Your task to perform on an android device: refresh tabs in the chrome app Image 0: 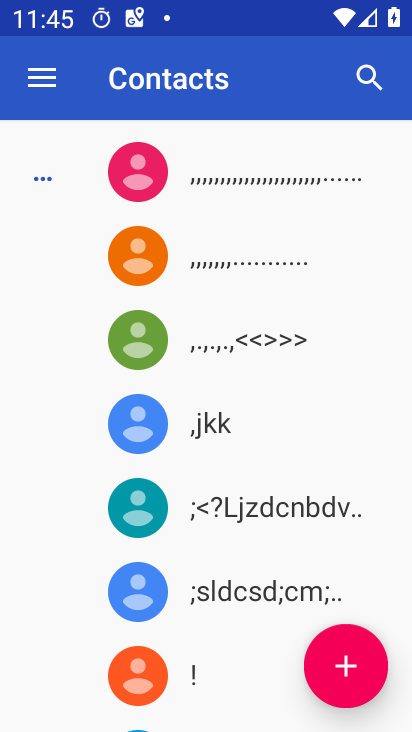
Step 0: press home button
Your task to perform on an android device: refresh tabs in the chrome app Image 1: 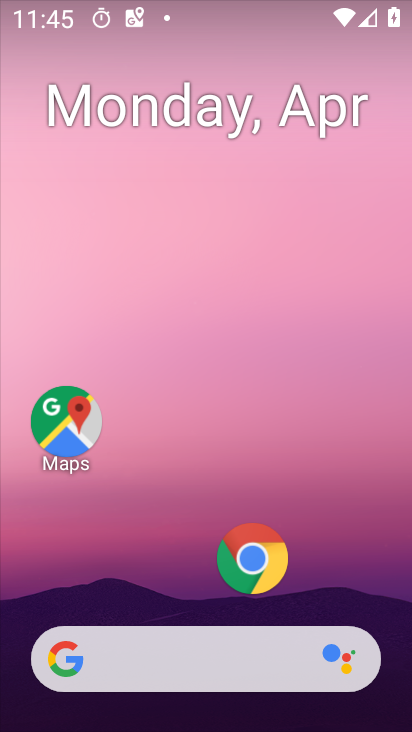
Step 1: click (246, 545)
Your task to perform on an android device: refresh tabs in the chrome app Image 2: 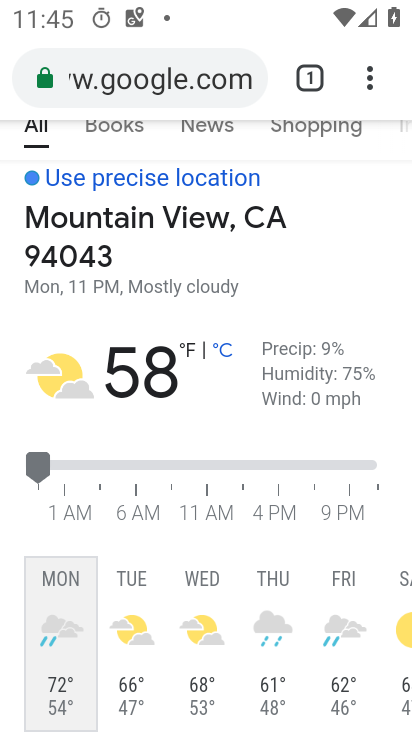
Step 2: click (326, 81)
Your task to perform on an android device: refresh tabs in the chrome app Image 3: 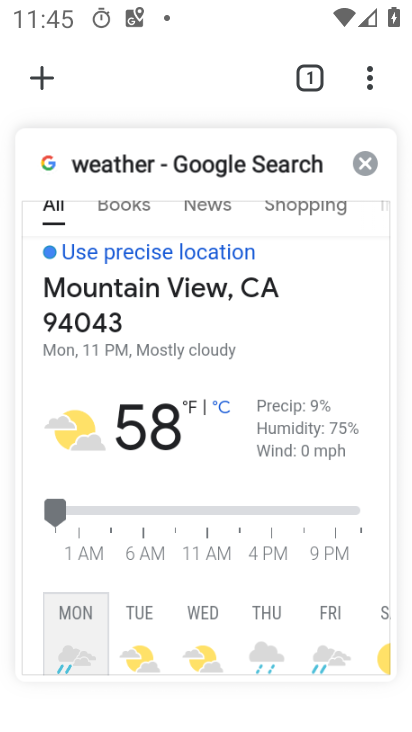
Step 3: click (380, 80)
Your task to perform on an android device: refresh tabs in the chrome app Image 4: 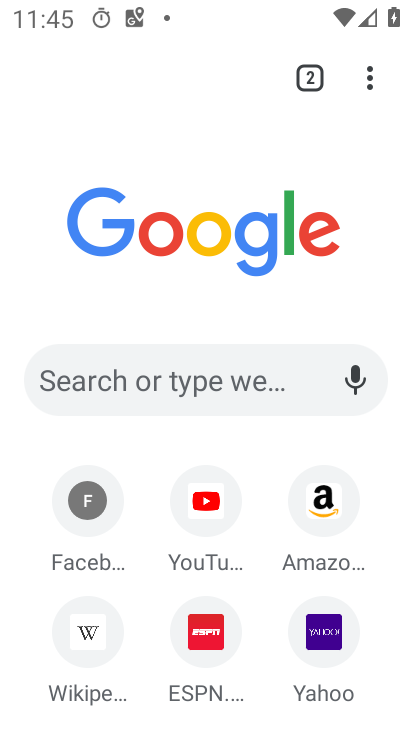
Step 4: click (370, 81)
Your task to perform on an android device: refresh tabs in the chrome app Image 5: 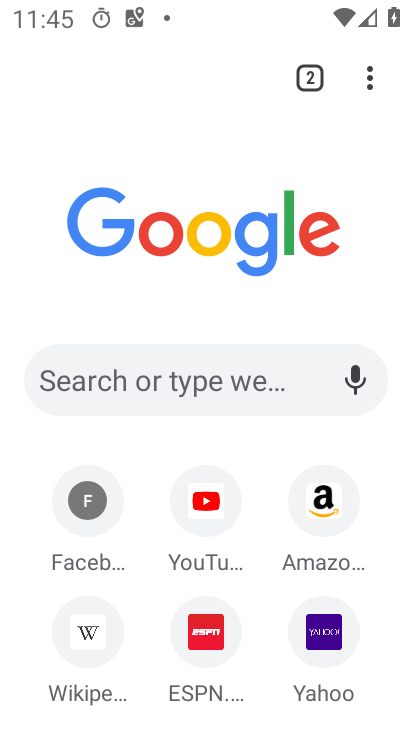
Step 5: click (373, 70)
Your task to perform on an android device: refresh tabs in the chrome app Image 6: 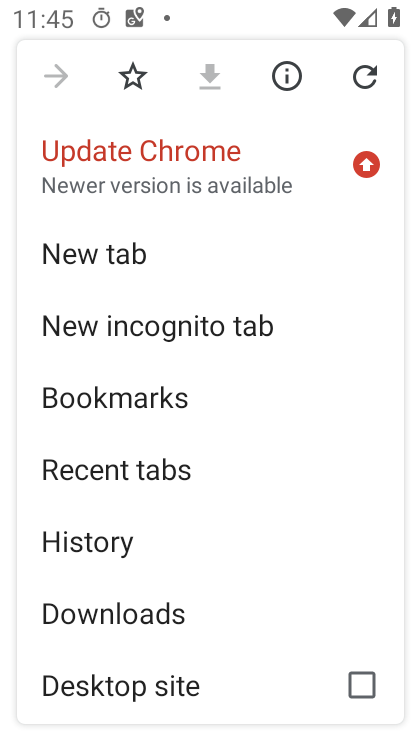
Step 6: click (362, 83)
Your task to perform on an android device: refresh tabs in the chrome app Image 7: 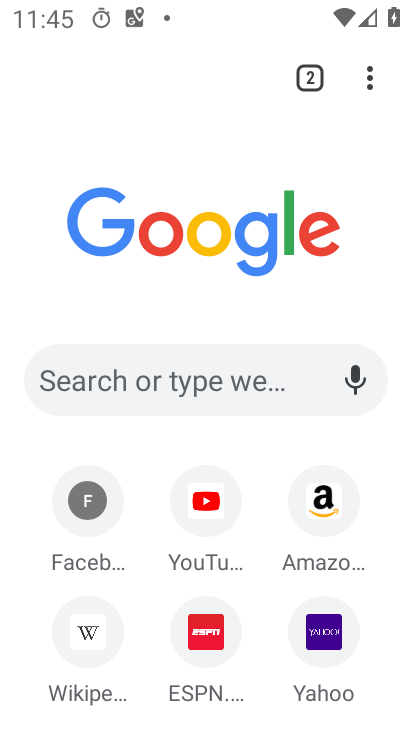
Step 7: task complete